Your task to perform on an android device: Open Android settings Image 0: 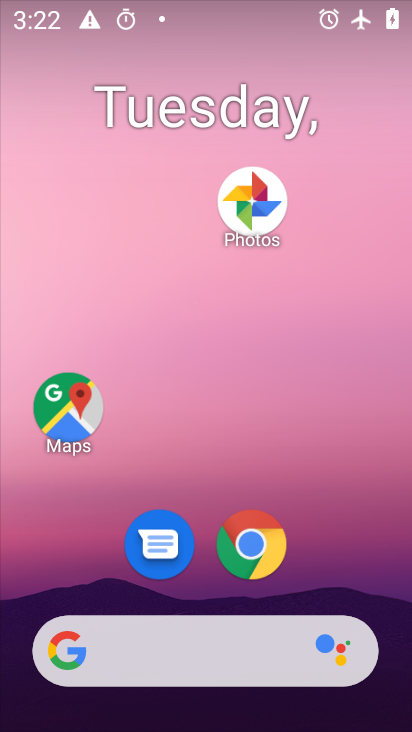
Step 0: drag from (332, 541) to (301, 87)
Your task to perform on an android device: Open Android settings Image 1: 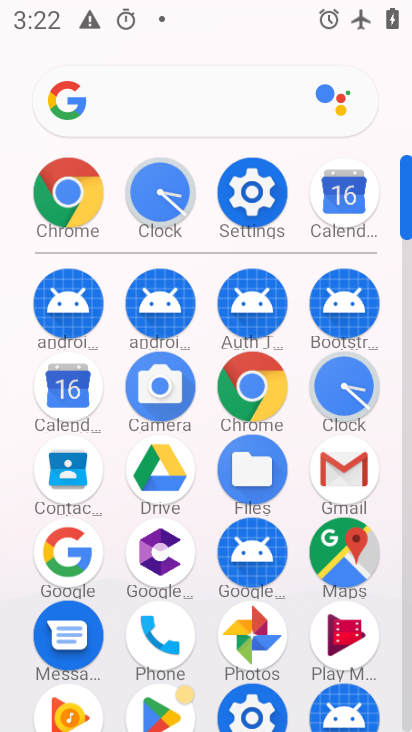
Step 1: click (250, 705)
Your task to perform on an android device: Open Android settings Image 2: 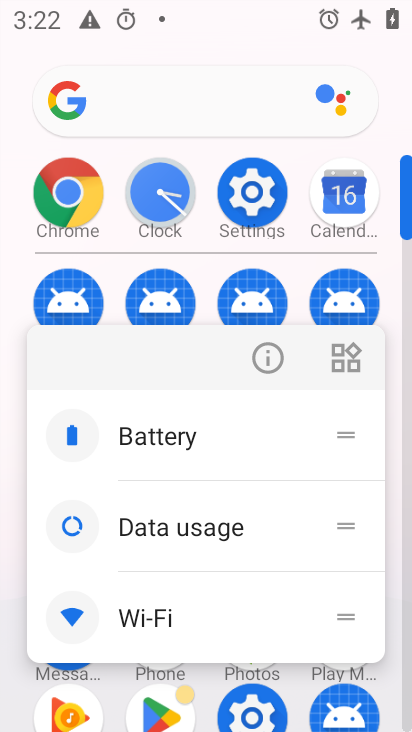
Step 2: click (252, 706)
Your task to perform on an android device: Open Android settings Image 3: 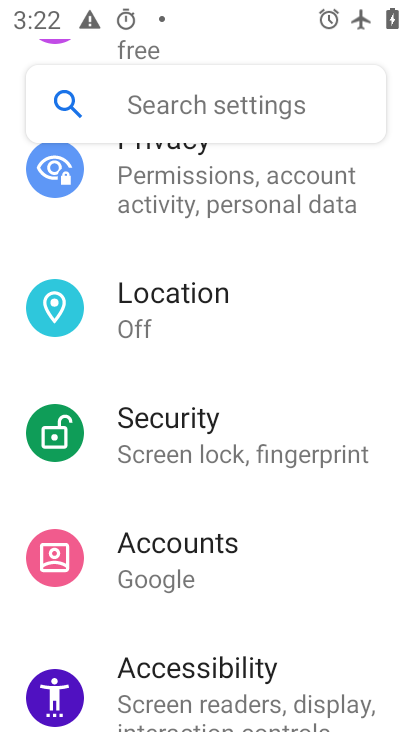
Step 3: task complete